Your task to perform on an android device: change the upload size in google photos Image 0: 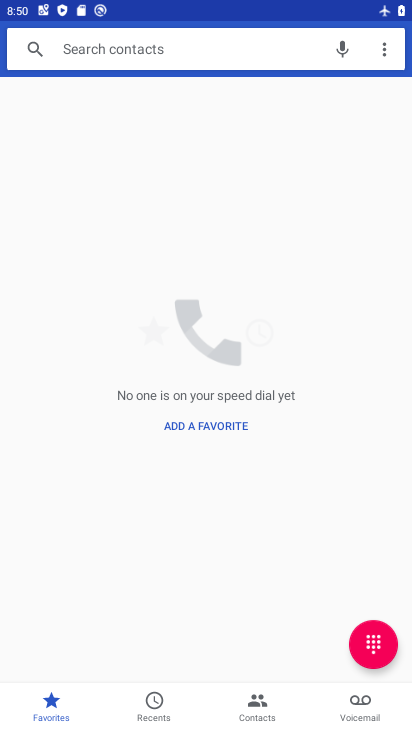
Step 0: press home button
Your task to perform on an android device: change the upload size in google photos Image 1: 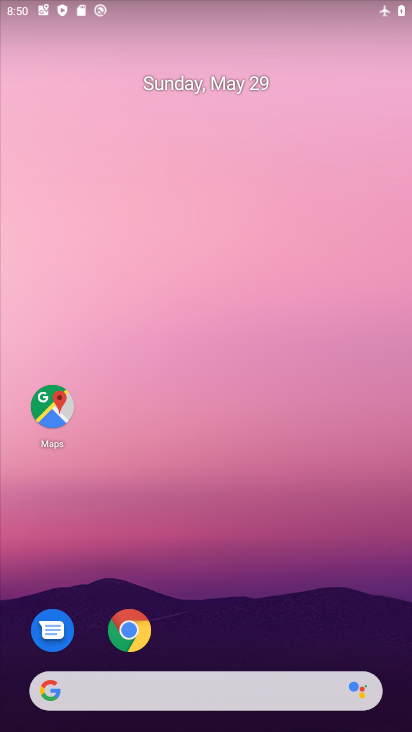
Step 1: drag from (218, 664) to (164, 142)
Your task to perform on an android device: change the upload size in google photos Image 2: 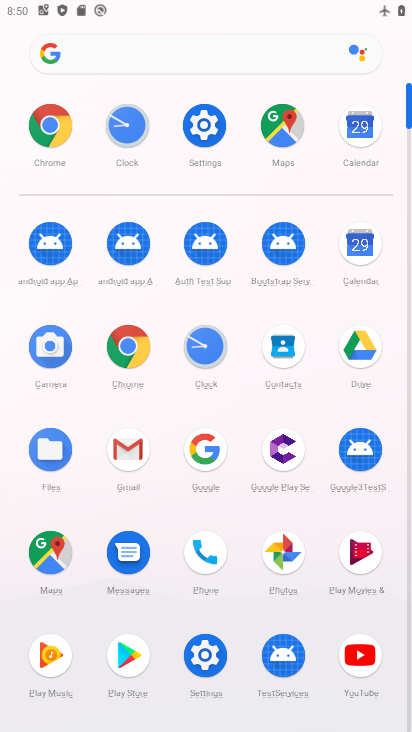
Step 2: click (301, 558)
Your task to perform on an android device: change the upload size in google photos Image 3: 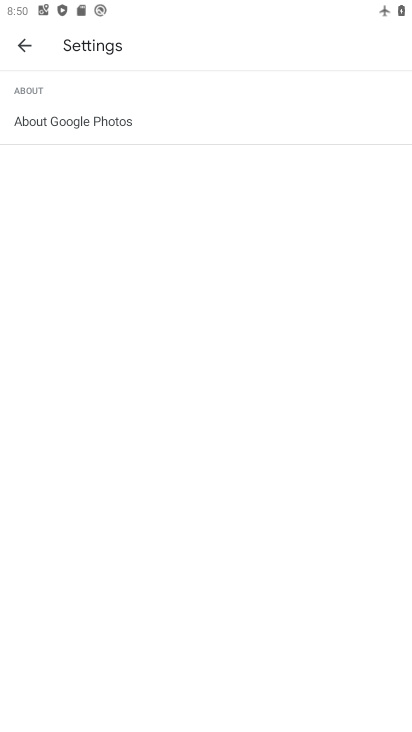
Step 3: click (26, 38)
Your task to perform on an android device: change the upload size in google photos Image 4: 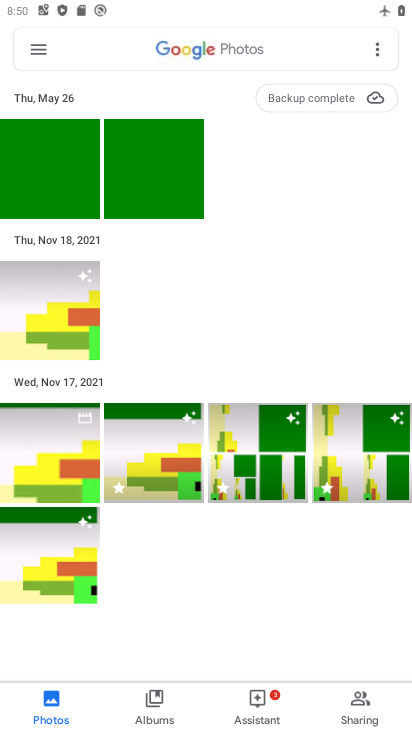
Step 4: click (32, 55)
Your task to perform on an android device: change the upload size in google photos Image 5: 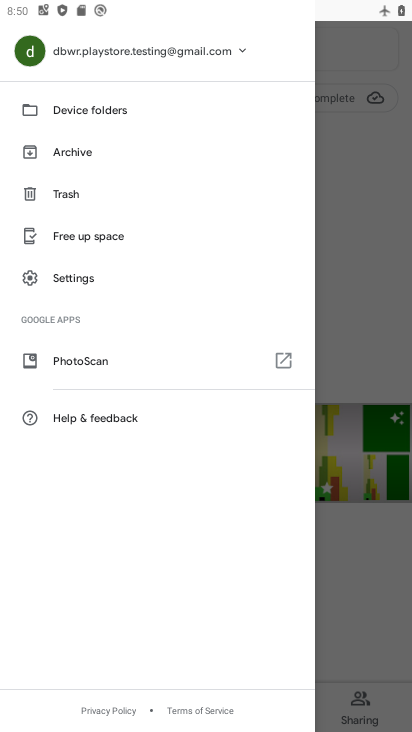
Step 5: click (56, 279)
Your task to perform on an android device: change the upload size in google photos Image 6: 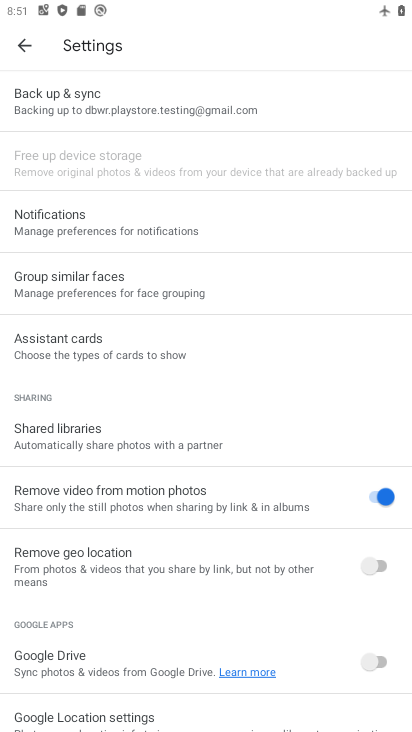
Step 6: click (101, 110)
Your task to perform on an android device: change the upload size in google photos Image 7: 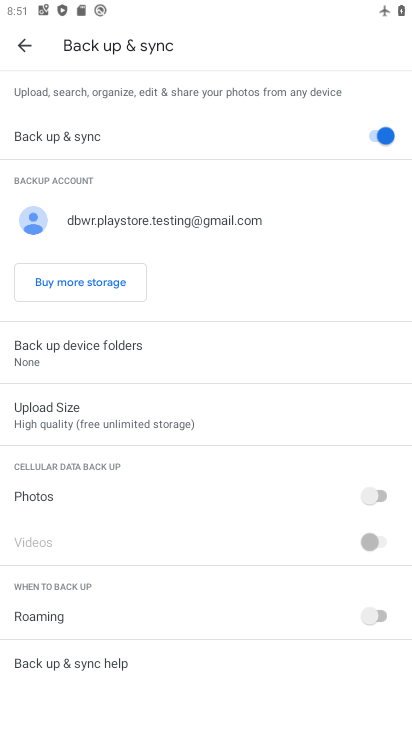
Step 7: click (102, 396)
Your task to perform on an android device: change the upload size in google photos Image 8: 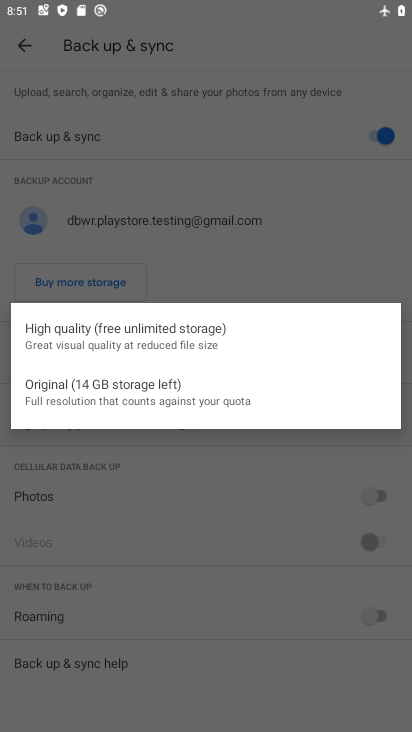
Step 8: click (102, 392)
Your task to perform on an android device: change the upload size in google photos Image 9: 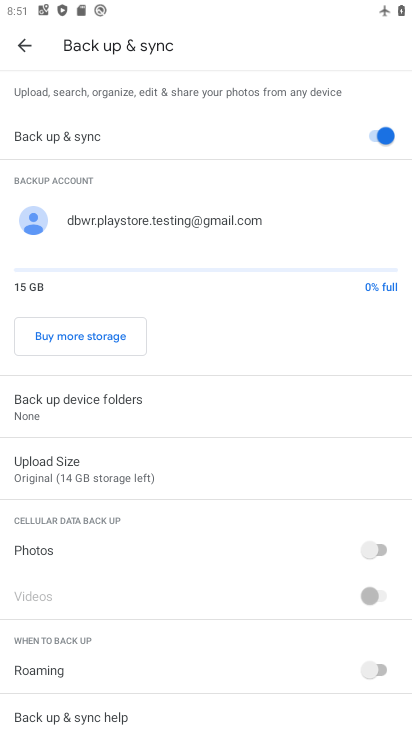
Step 9: task complete